Your task to perform on an android device: open wifi settings Image 0: 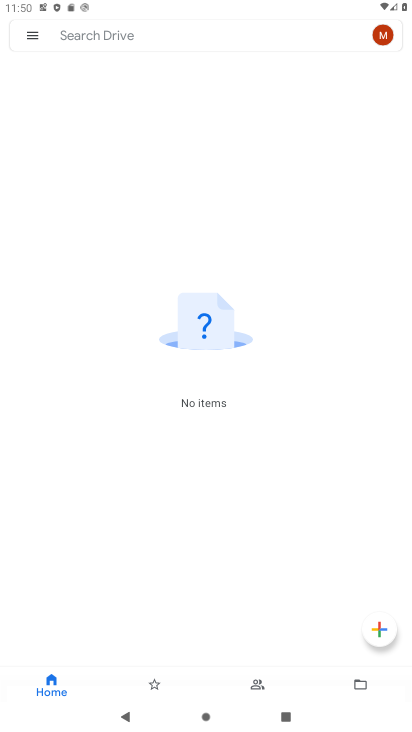
Step 0: press home button
Your task to perform on an android device: open wifi settings Image 1: 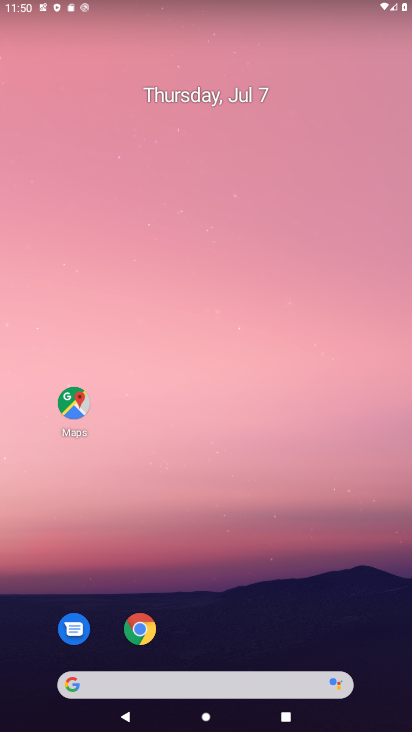
Step 1: drag from (324, 550) to (351, 120)
Your task to perform on an android device: open wifi settings Image 2: 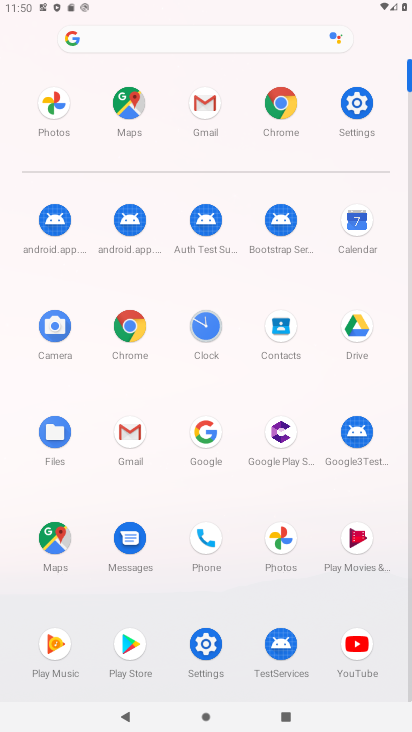
Step 2: click (205, 645)
Your task to perform on an android device: open wifi settings Image 3: 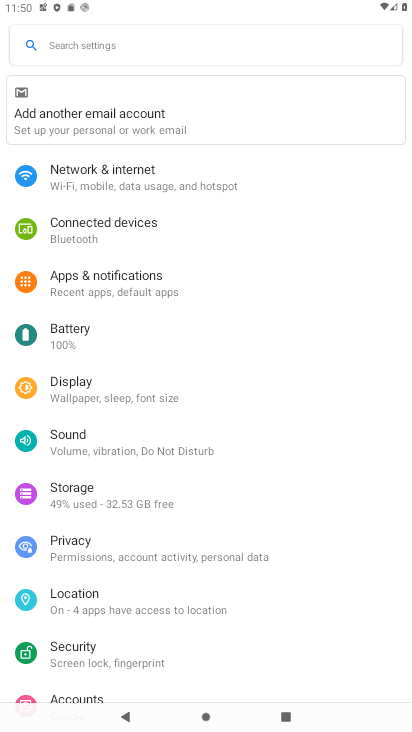
Step 3: click (82, 163)
Your task to perform on an android device: open wifi settings Image 4: 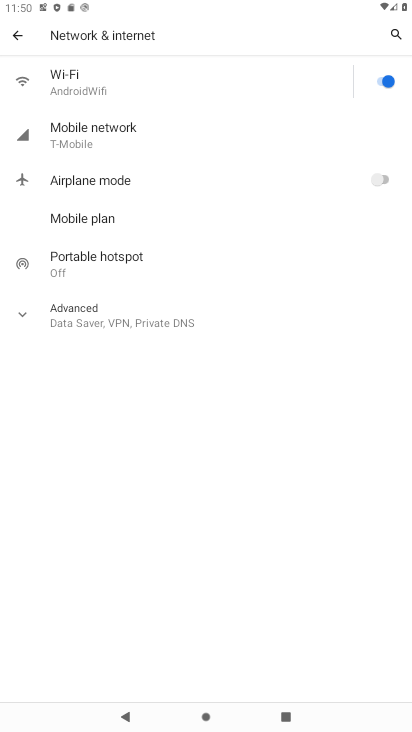
Step 4: click (67, 79)
Your task to perform on an android device: open wifi settings Image 5: 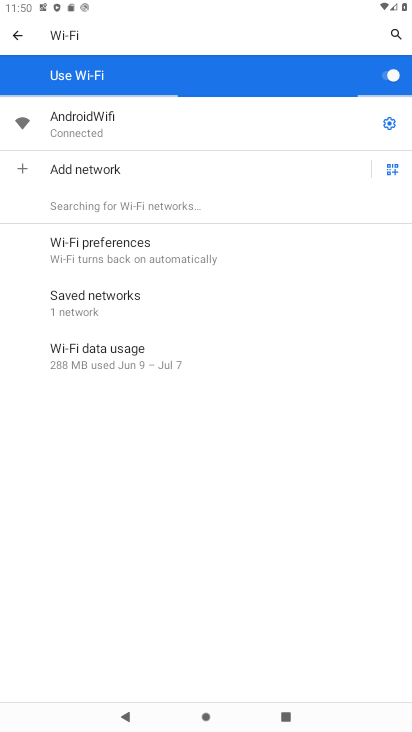
Step 5: task complete